Your task to perform on an android device: move an email to a new category in the gmail app Image 0: 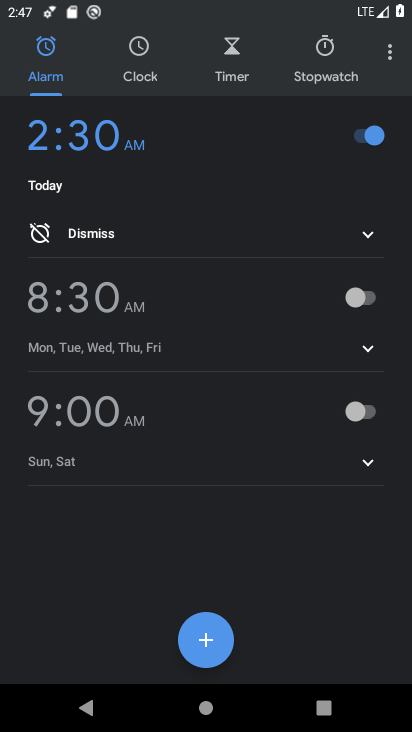
Step 0: press home button
Your task to perform on an android device: move an email to a new category in the gmail app Image 1: 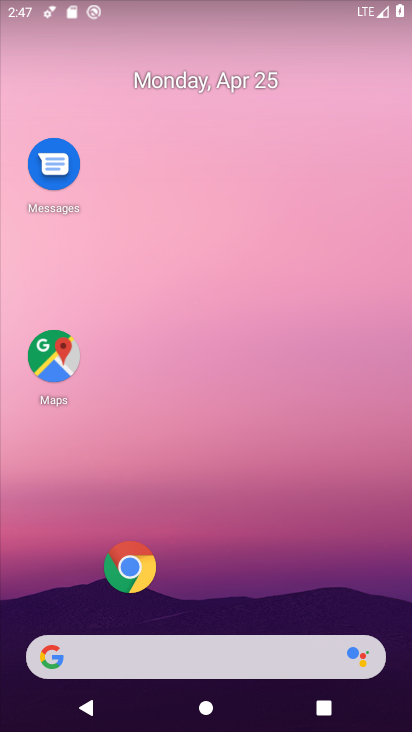
Step 1: drag from (233, 652) to (299, 266)
Your task to perform on an android device: move an email to a new category in the gmail app Image 2: 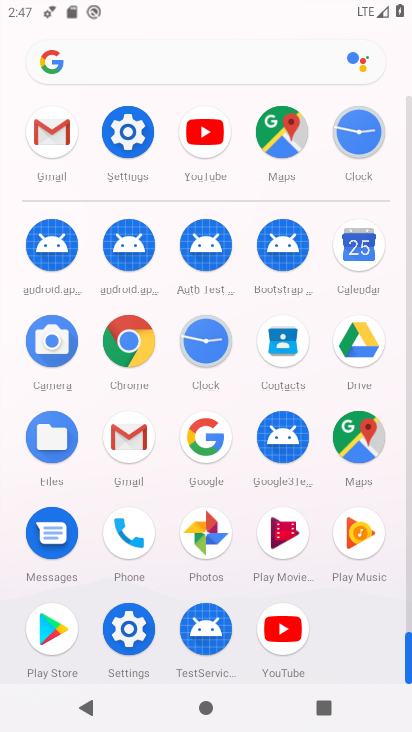
Step 2: click (139, 449)
Your task to perform on an android device: move an email to a new category in the gmail app Image 3: 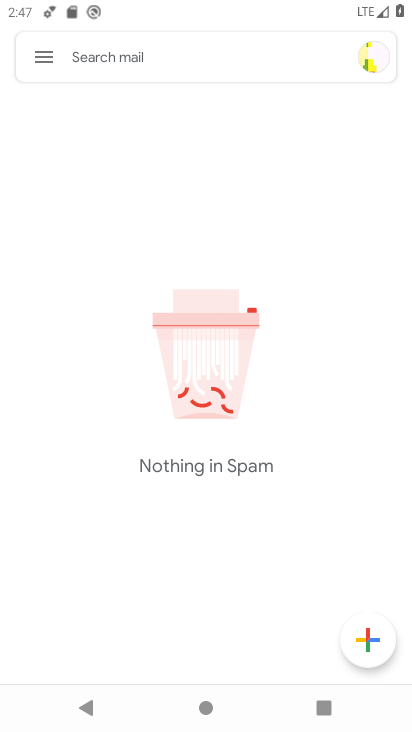
Step 3: click (39, 62)
Your task to perform on an android device: move an email to a new category in the gmail app Image 4: 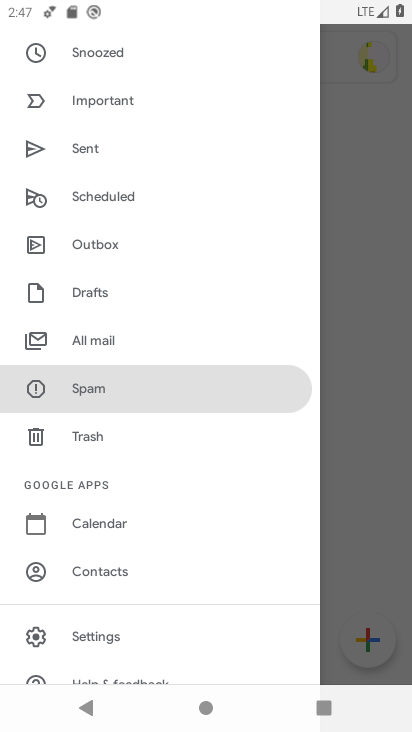
Step 4: click (153, 345)
Your task to perform on an android device: move an email to a new category in the gmail app Image 5: 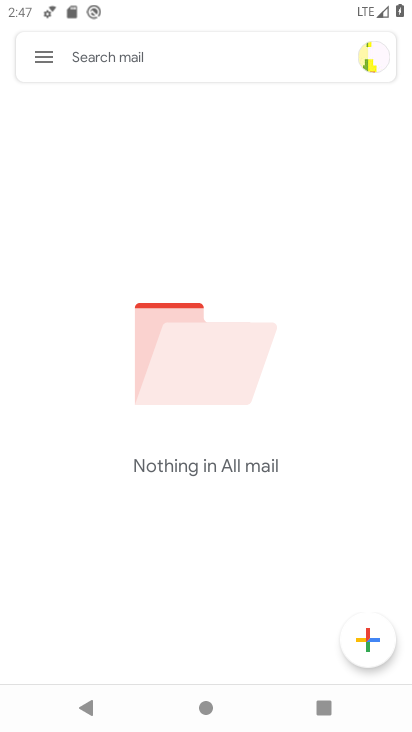
Step 5: task complete